Your task to perform on an android device: turn on bluetooth scan Image 0: 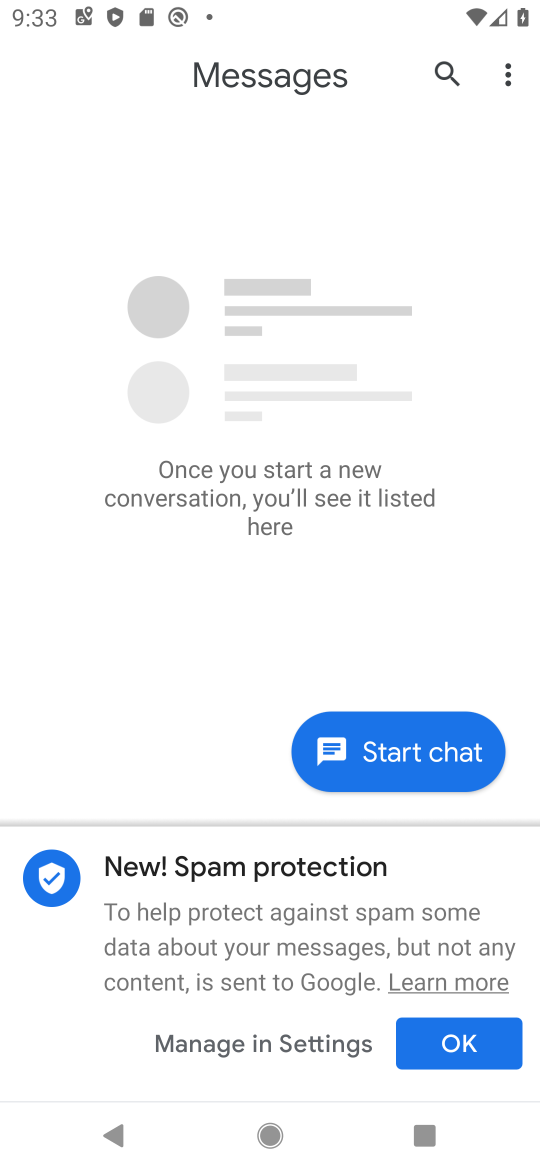
Step 0: press home button
Your task to perform on an android device: turn on bluetooth scan Image 1: 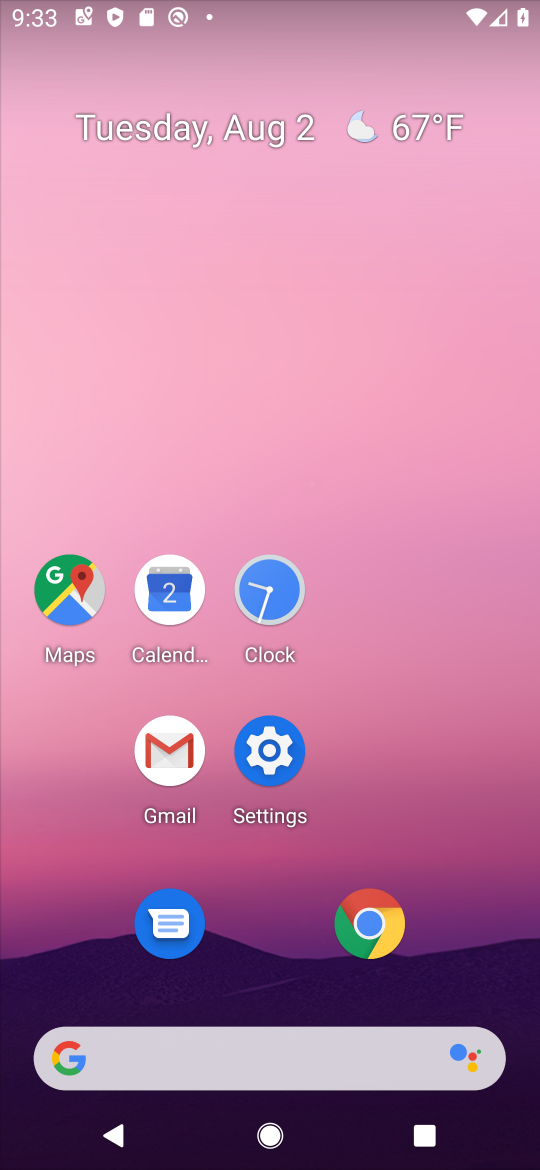
Step 1: click (266, 756)
Your task to perform on an android device: turn on bluetooth scan Image 2: 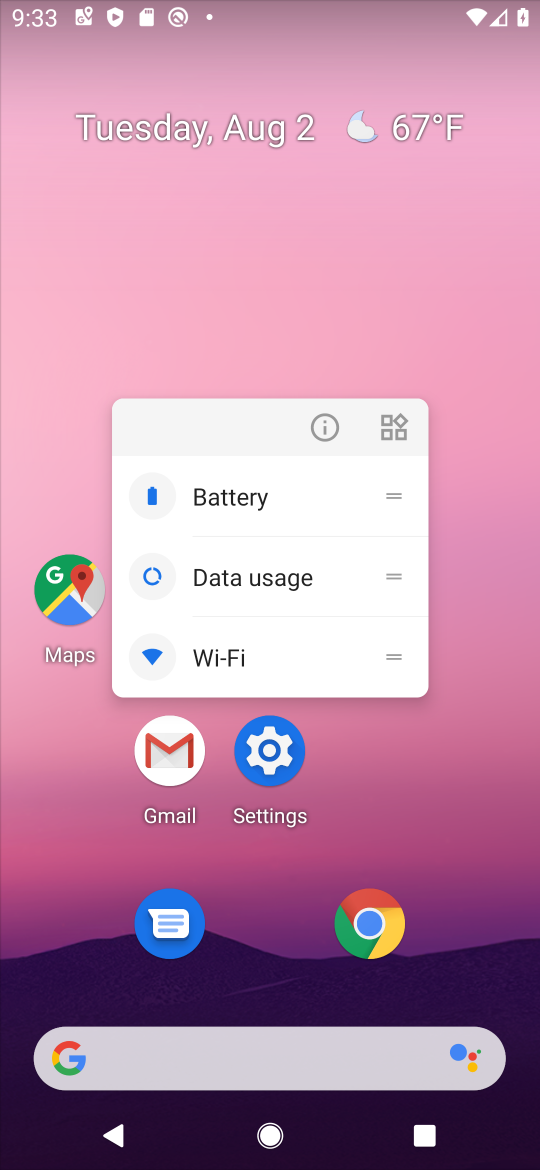
Step 2: click (266, 756)
Your task to perform on an android device: turn on bluetooth scan Image 3: 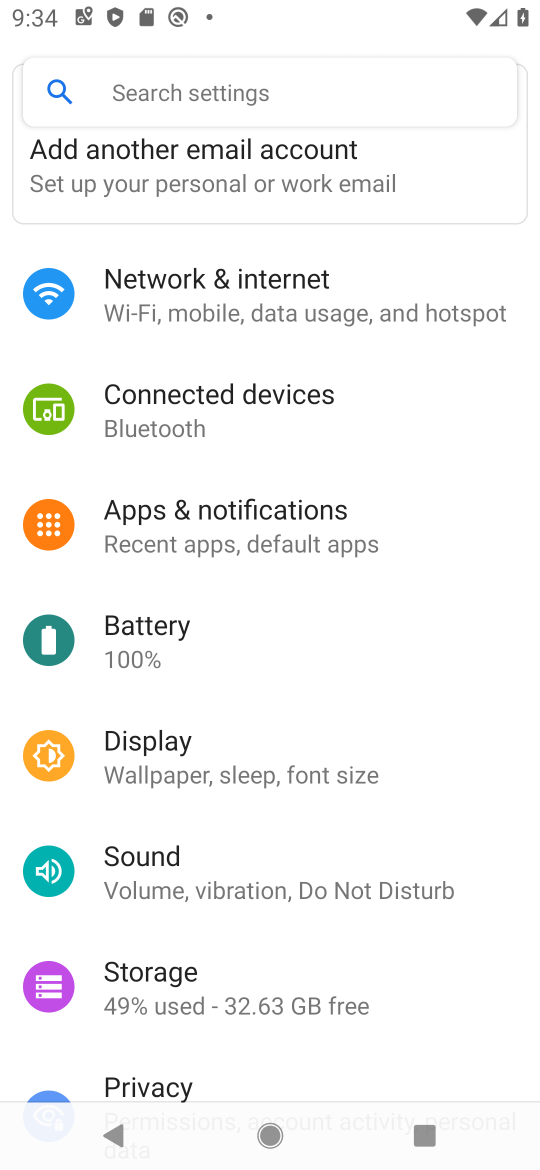
Step 3: drag from (338, 1020) to (350, 425)
Your task to perform on an android device: turn on bluetooth scan Image 4: 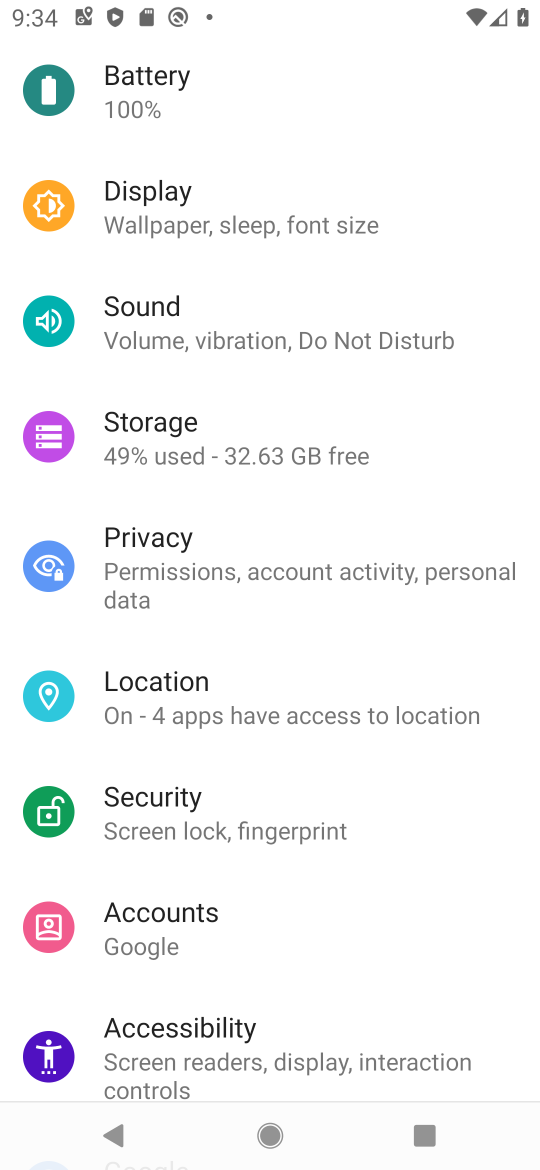
Step 4: drag from (360, 803) to (350, 492)
Your task to perform on an android device: turn on bluetooth scan Image 5: 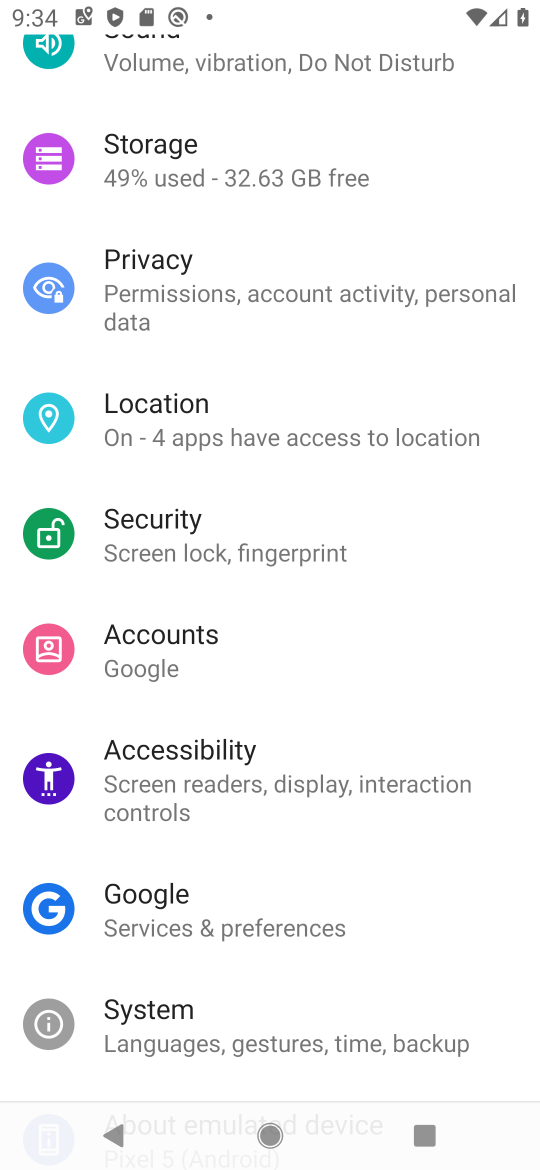
Step 5: click (136, 421)
Your task to perform on an android device: turn on bluetooth scan Image 6: 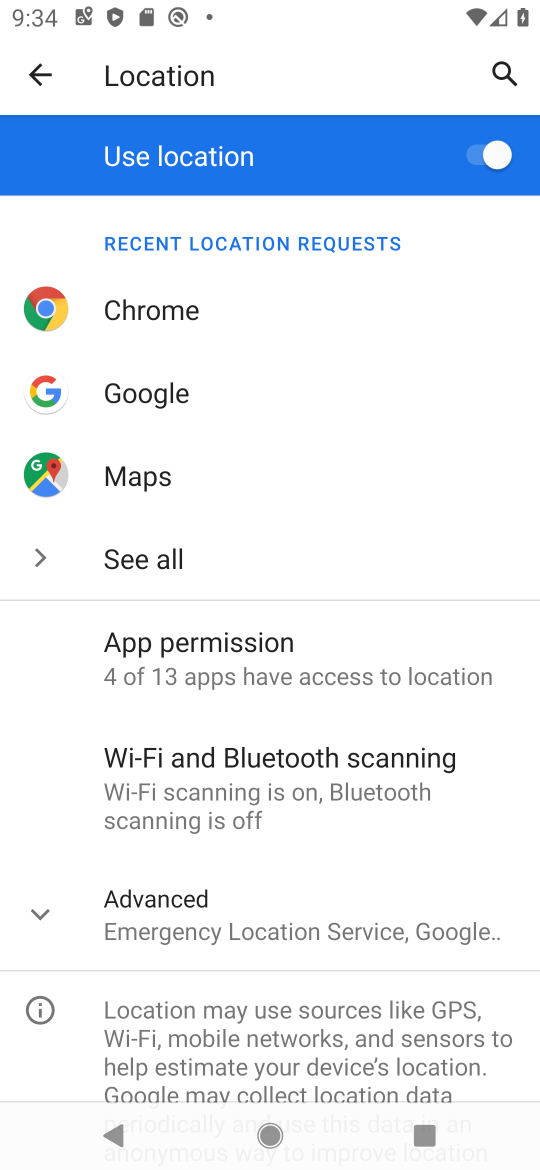
Step 6: drag from (414, 868) to (400, 333)
Your task to perform on an android device: turn on bluetooth scan Image 7: 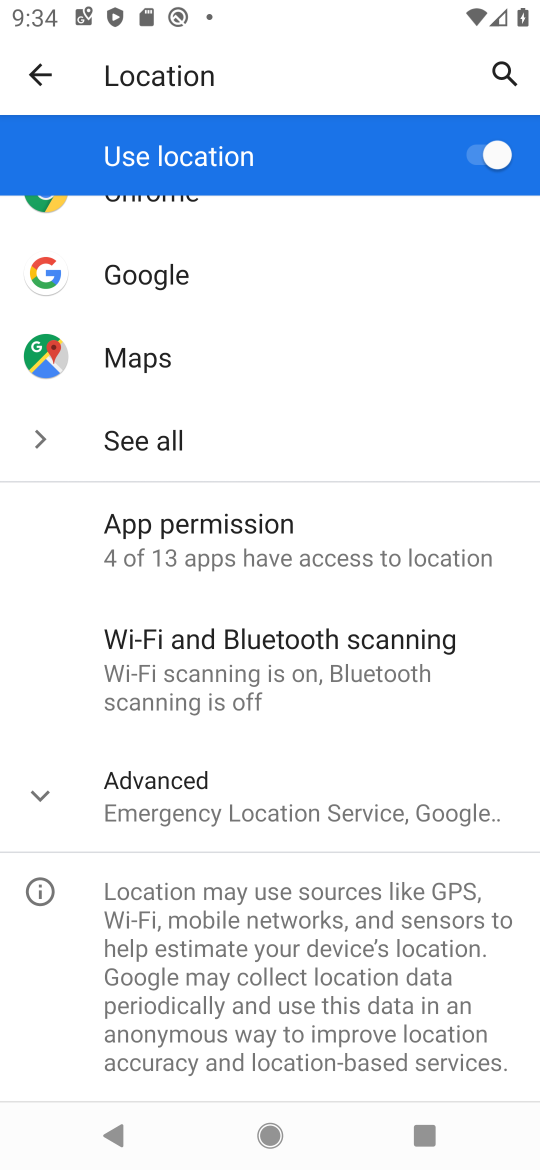
Step 7: click (148, 652)
Your task to perform on an android device: turn on bluetooth scan Image 8: 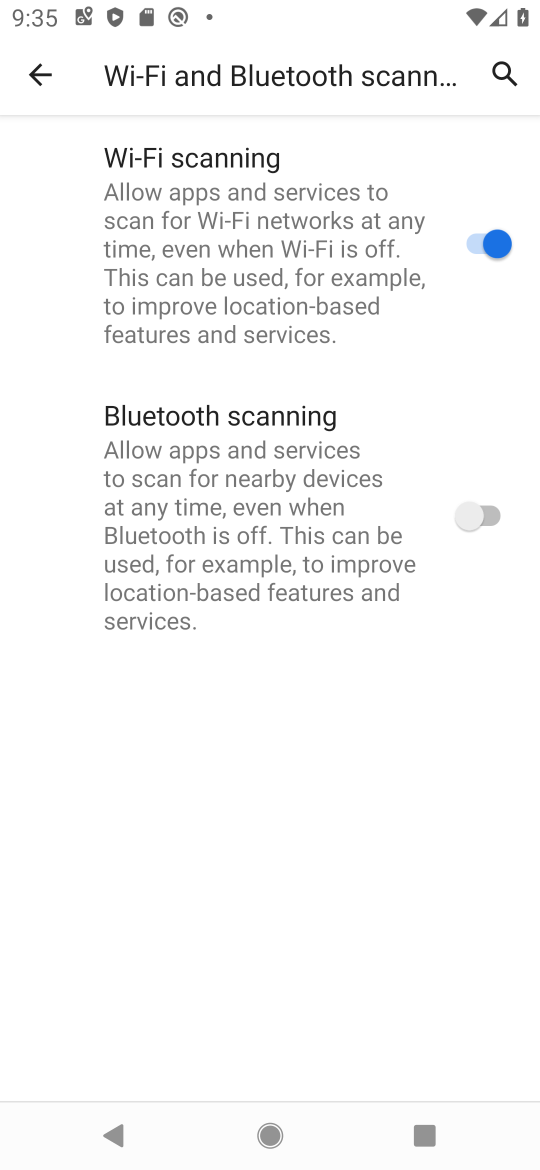
Step 8: click (488, 498)
Your task to perform on an android device: turn on bluetooth scan Image 9: 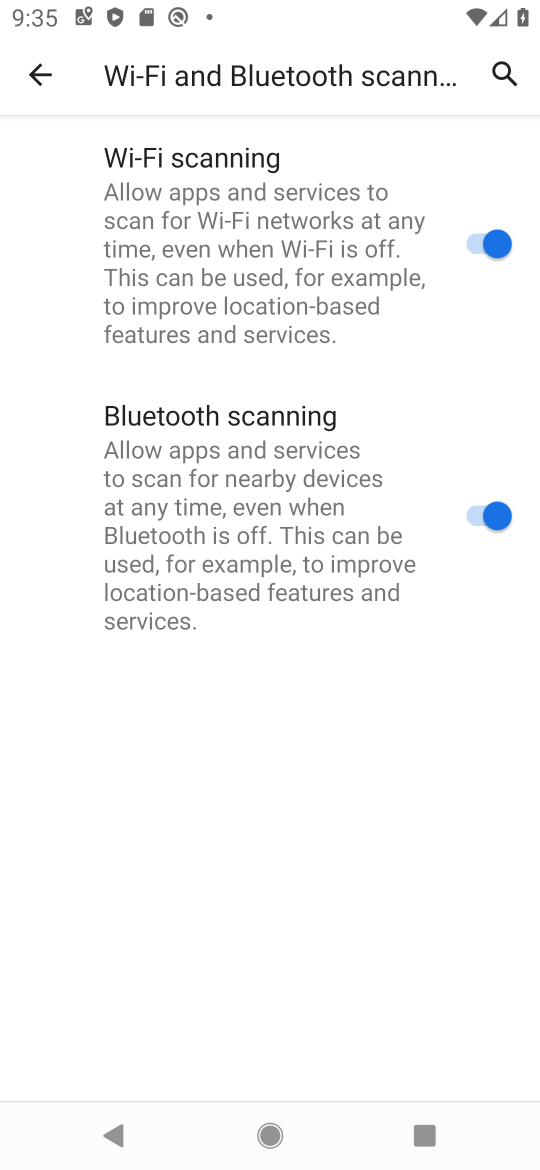
Step 9: task complete